Your task to perform on an android device: check battery use Image 0: 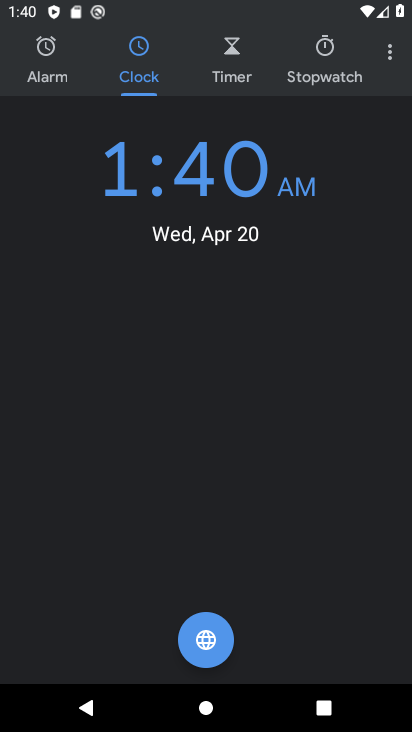
Step 0: press home button
Your task to perform on an android device: check battery use Image 1: 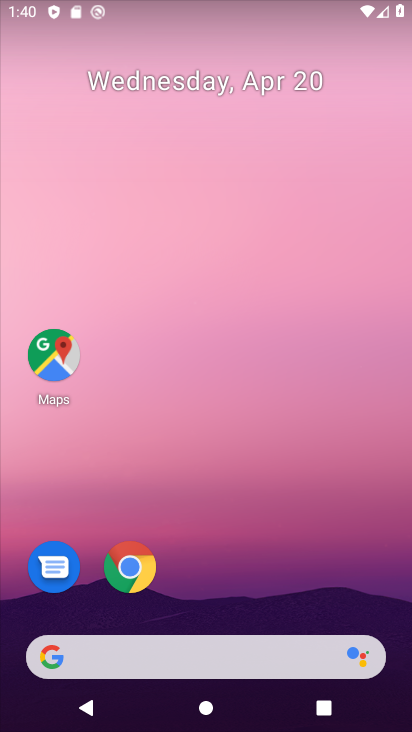
Step 1: drag from (206, 724) to (195, 191)
Your task to perform on an android device: check battery use Image 2: 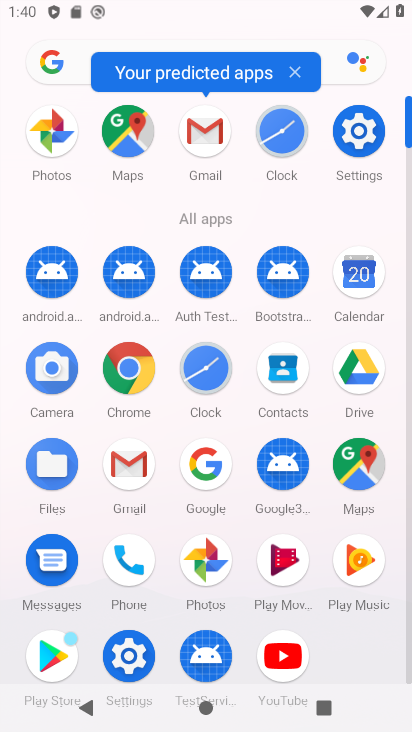
Step 2: click (124, 656)
Your task to perform on an android device: check battery use Image 3: 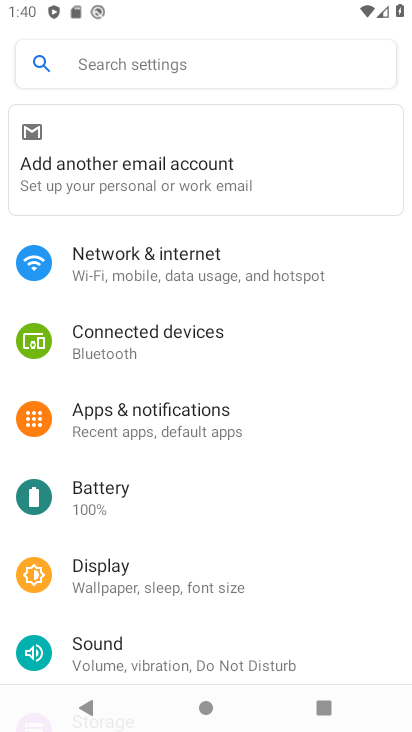
Step 3: click (92, 483)
Your task to perform on an android device: check battery use Image 4: 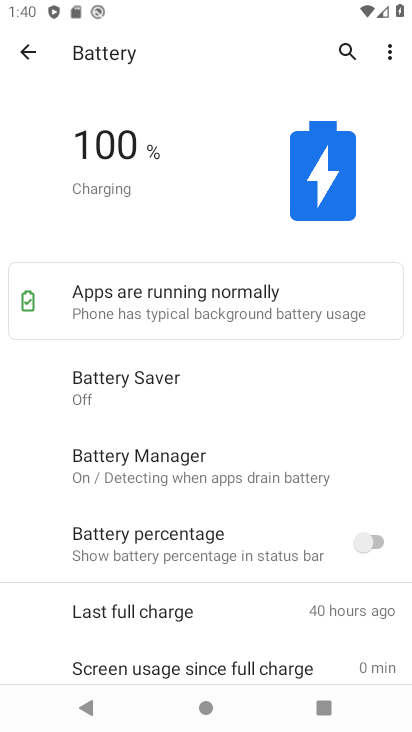
Step 4: click (391, 50)
Your task to perform on an android device: check battery use Image 5: 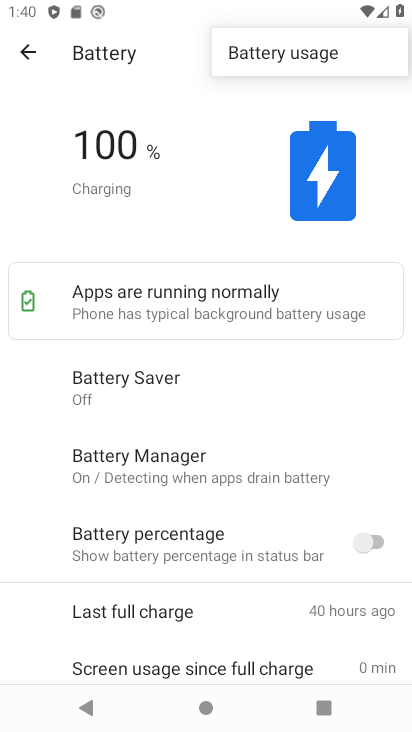
Step 5: click (274, 54)
Your task to perform on an android device: check battery use Image 6: 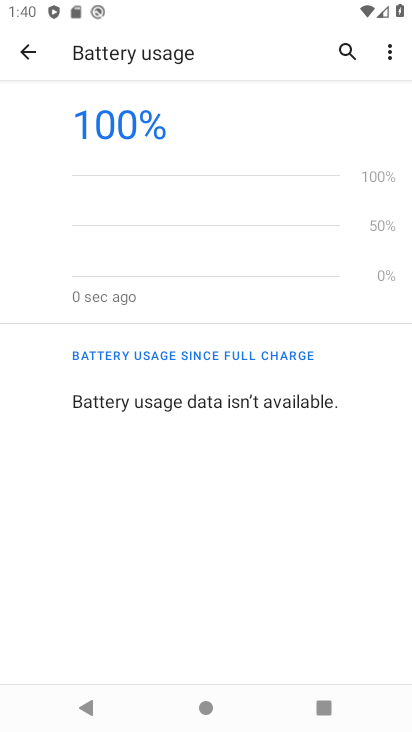
Step 6: task complete